Your task to perform on an android device: Search for "bose soundlink mini" on target.com, select the first entry, add it to the cart, then select checkout. Image 0: 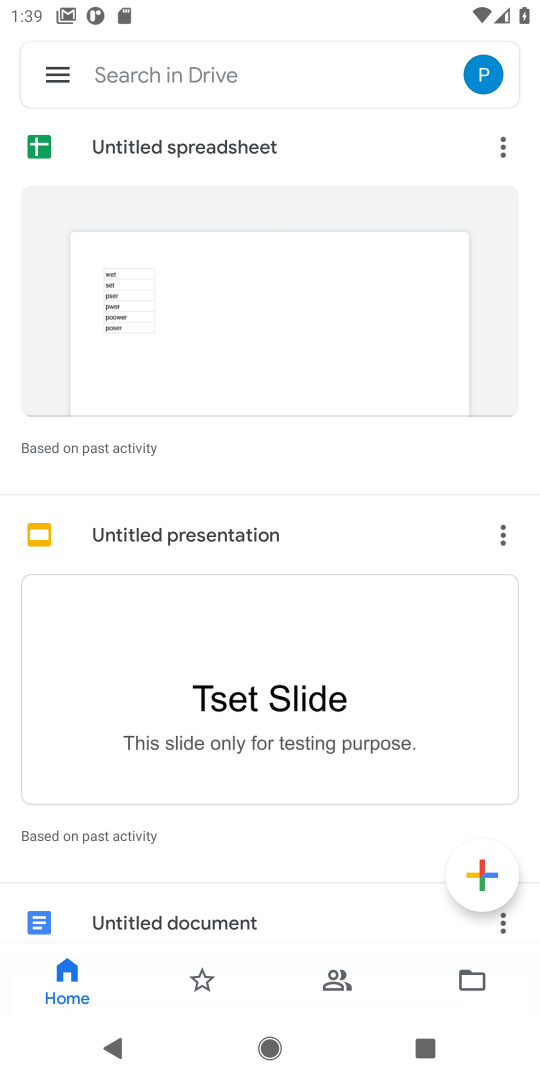
Step 0: press home button
Your task to perform on an android device: Search for "bose soundlink mini" on target.com, select the first entry, add it to the cart, then select checkout. Image 1: 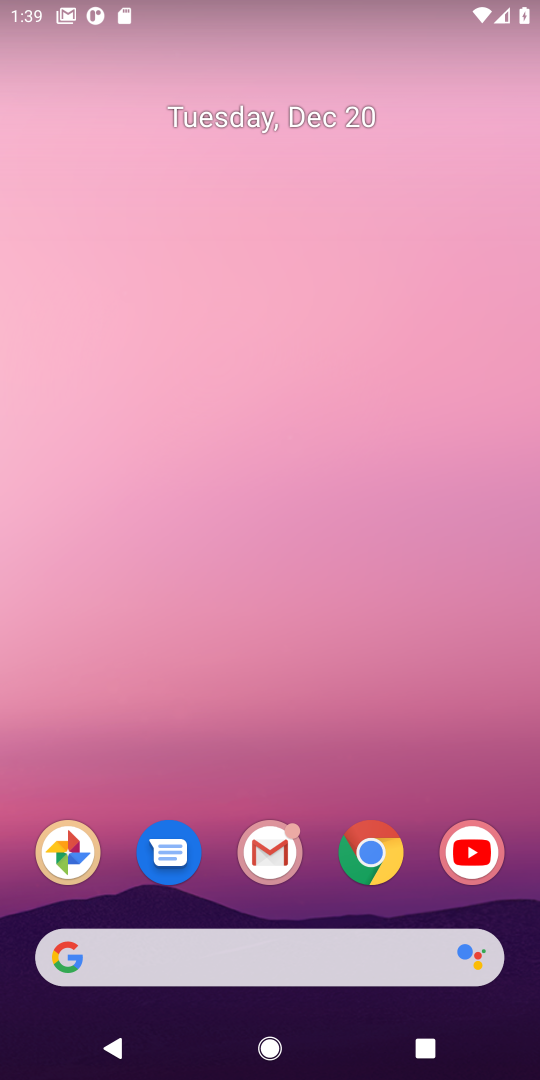
Step 1: click (385, 844)
Your task to perform on an android device: Search for "bose soundlink mini" on target.com, select the first entry, add it to the cart, then select checkout. Image 2: 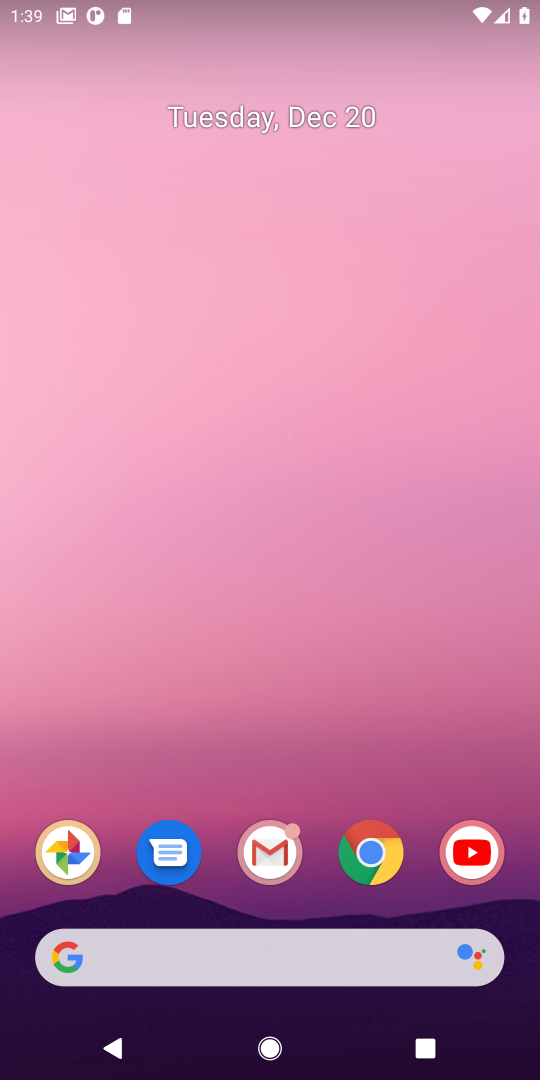
Step 2: click (385, 844)
Your task to perform on an android device: Search for "bose soundlink mini" on target.com, select the first entry, add it to the cart, then select checkout. Image 3: 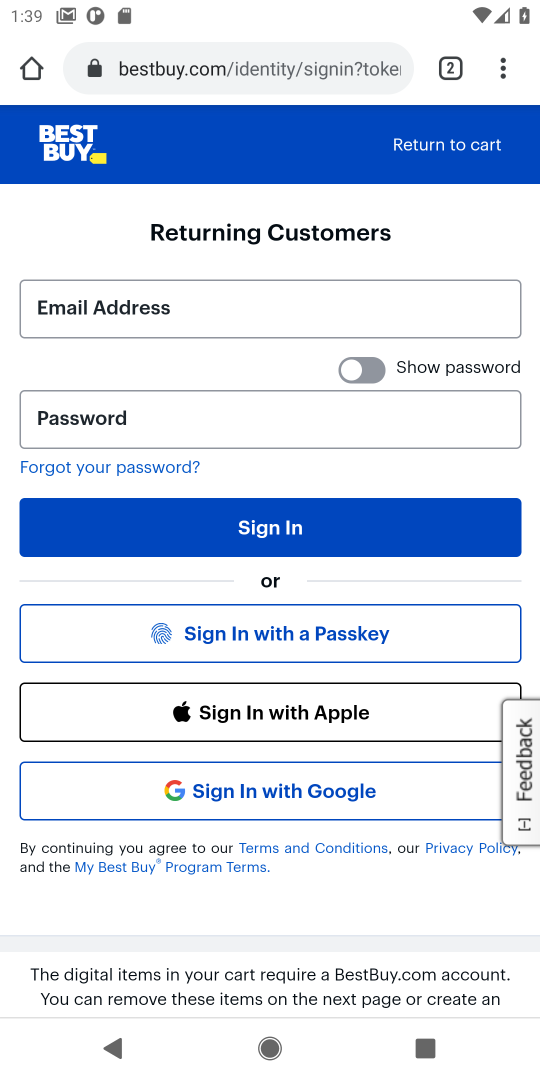
Step 3: click (192, 73)
Your task to perform on an android device: Search for "bose soundlink mini" on target.com, select the first entry, add it to the cart, then select checkout. Image 4: 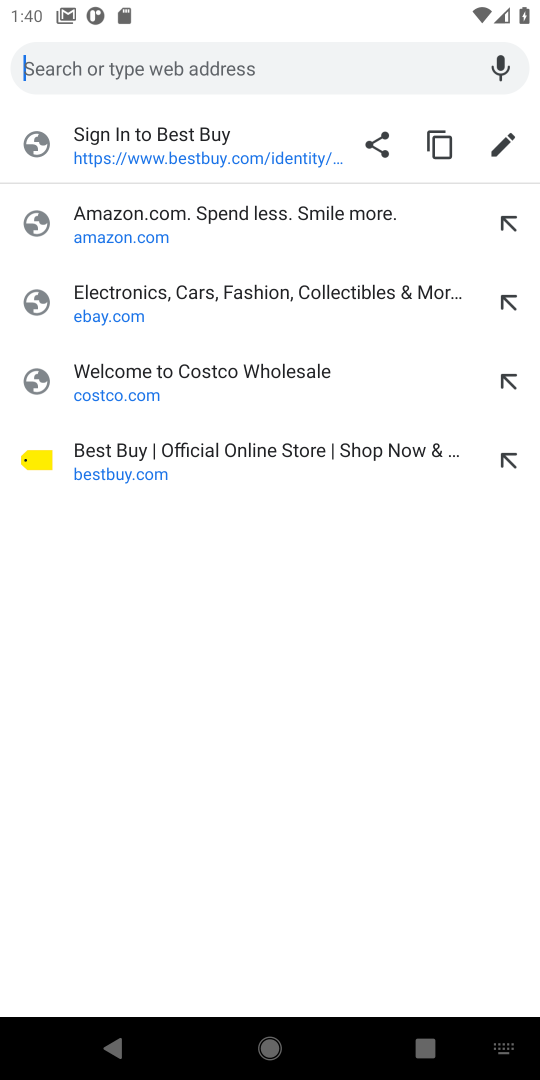
Step 4: type "target.com"
Your task to perform on an android device: Search for "bose soundlink mini" on target.com, select the first entry, add it to the cart, then select checkout. Image 5: 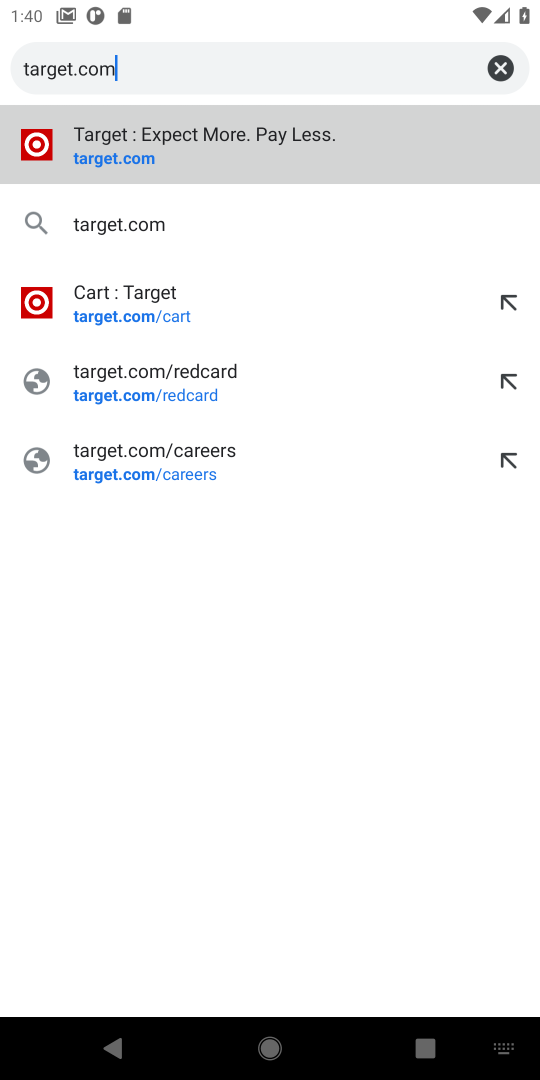
Step 5: click (104, 164)
Your task to perform on an android device: Search for "bose soundlink mini" on target.com, select the first entry, add it to the cart, then select checkout. Image 6: 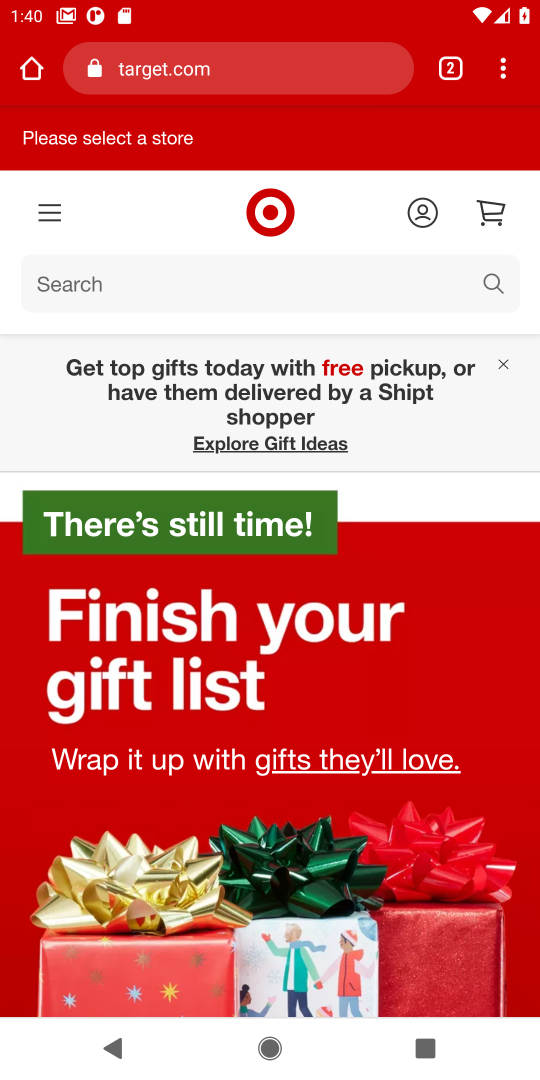
Step 6: click (75, 279)
Your task to perform on an android device: Search for "bose soundlink mini" on target.com, select the first entry, add it to the cart, then select checkout. Image 7: 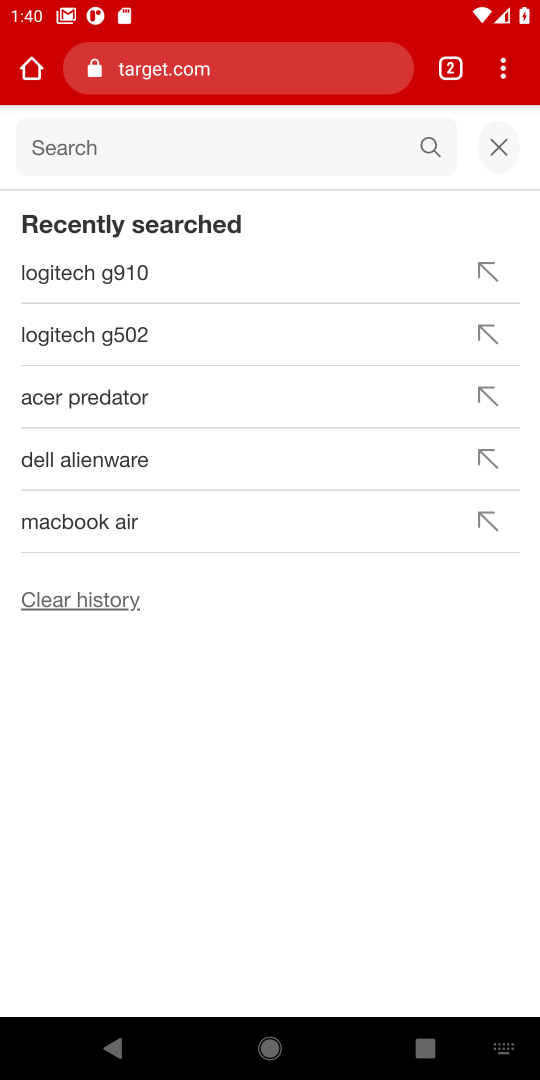
Step 7: type "bose soundlink mini"
Your task to perform on an android device: Search for "bose soundlink mini" on target.com, select the first entry, add it to the cart, then select checkout. Image 8: 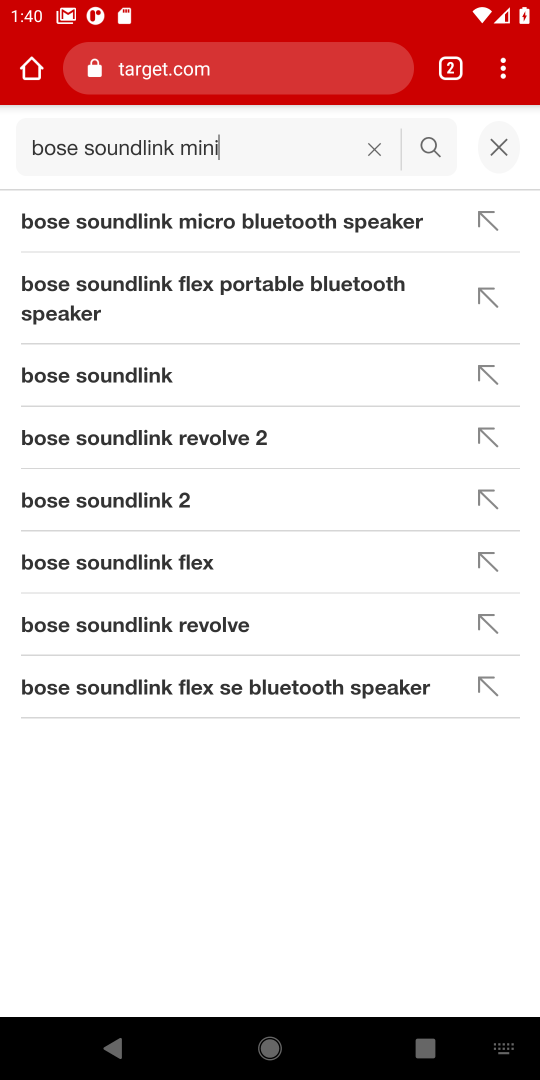
Step 8: click (426, 148)
Your task to perform on an android device: Search for "bose soundlink mini" on target.com, select the first entry, add it to the cart, then select checkout. Image 9: 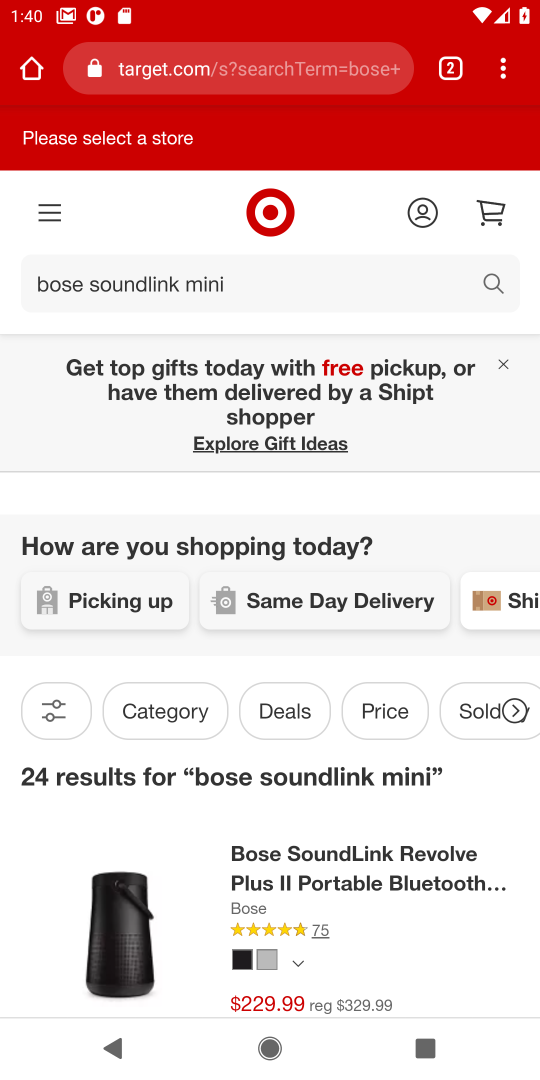
Step 9: task complete